Your task to perform on an android device: turn on notifications settings in the gmail app Image 0: 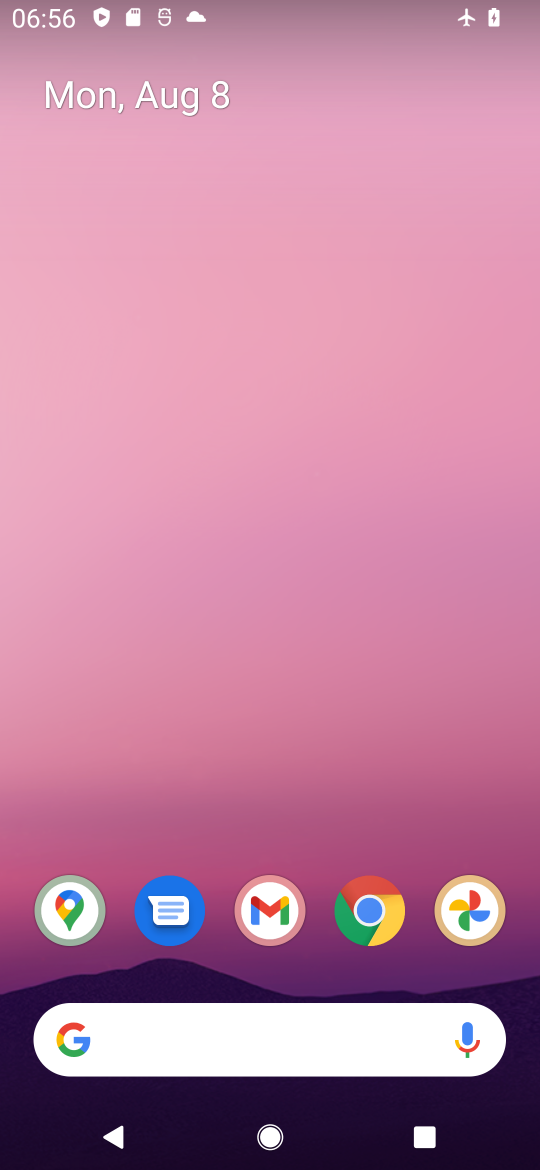
Step 0: drag from (261, 1050) to (282, 450)
Your task to perform on an android device: turn on notifications settings in the gmail app Image 1: 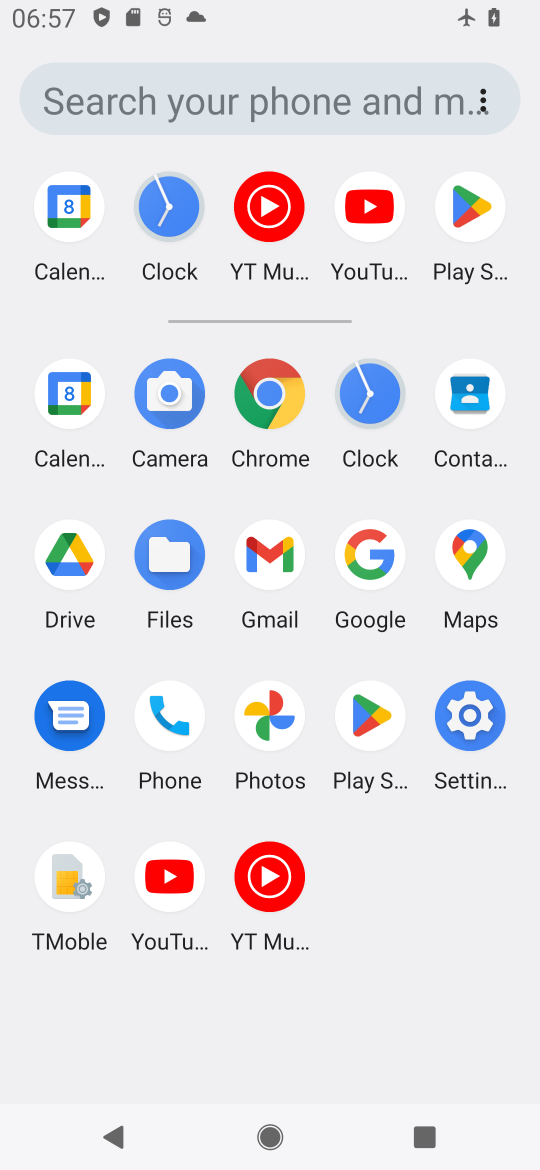
Step 1: click (271, 559)
Your task to perform on an android device: turn on notifications settings in the gmail app Image 2: 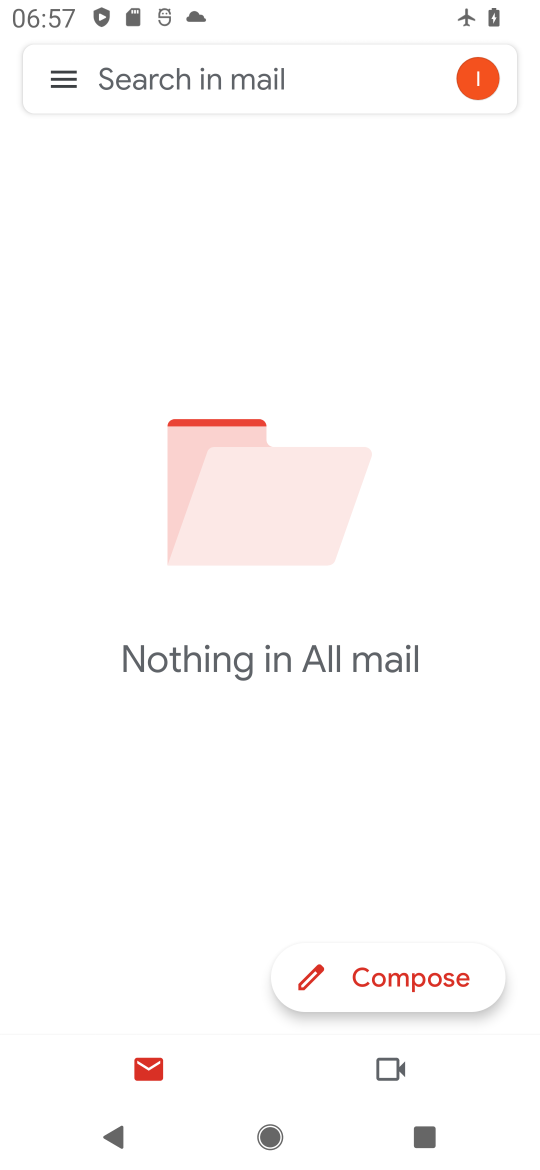
Step 2: click (65, 85)
Your task to perform on an android device: turn on notifications settings in the gmail app Image 3: 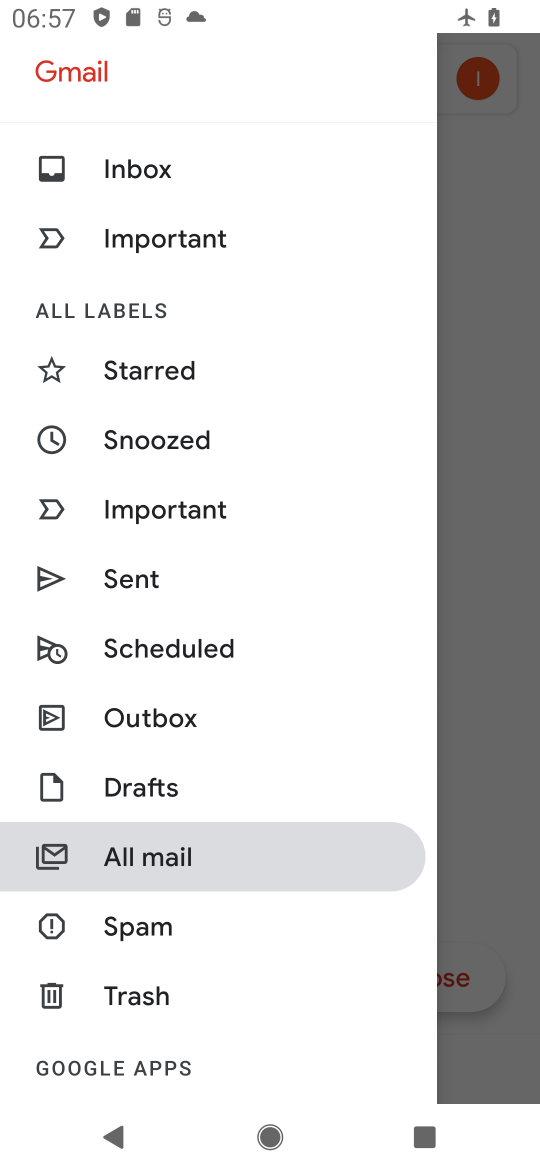
Step 3: drag from (148, 966) to (244, 824)
Your task to perform on an android device: turn on notifications settings in the gmail app Image 4: 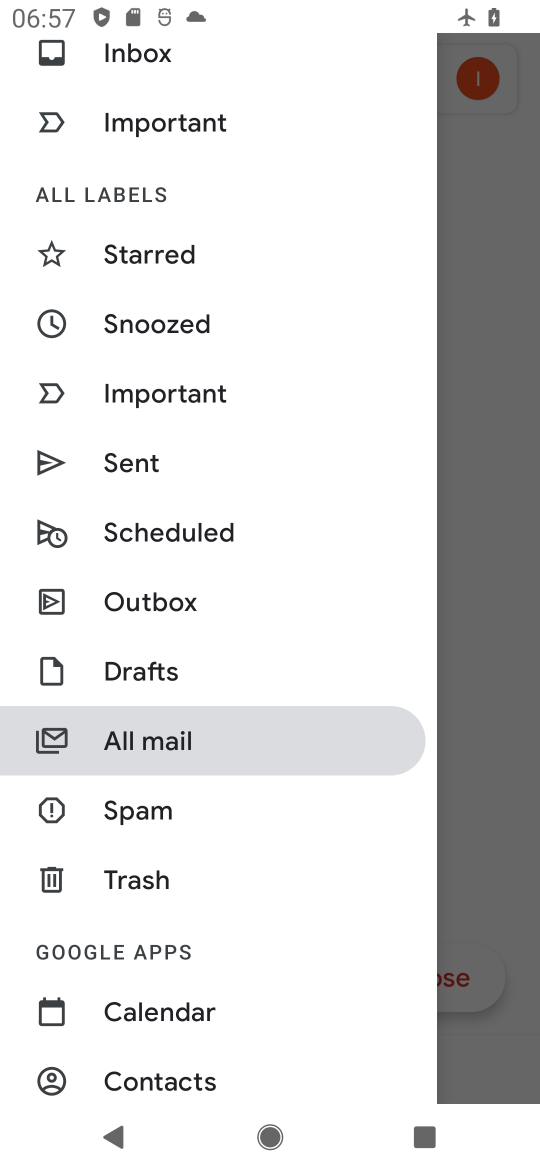
Step 4: drag from (126, 973) to (177, 851)
Your task to perform on an android device: turn on notifications settings in the gmail app Image 5: 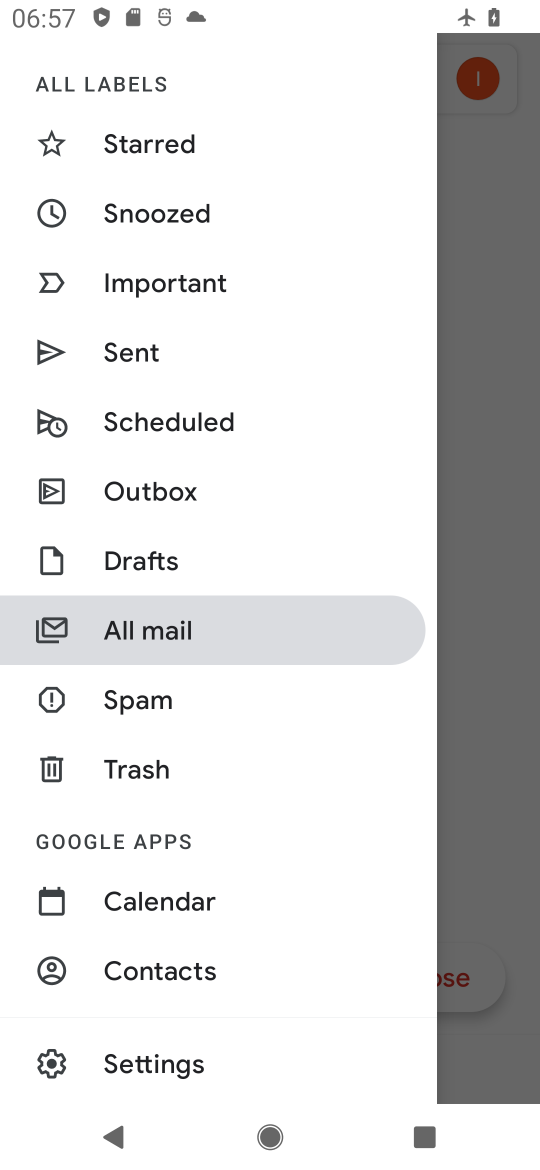
Step 5: drag from (134, 930) to (192, 783)
Your task to perform on an android device: turn on notifications settings in the gmail app Image 6: 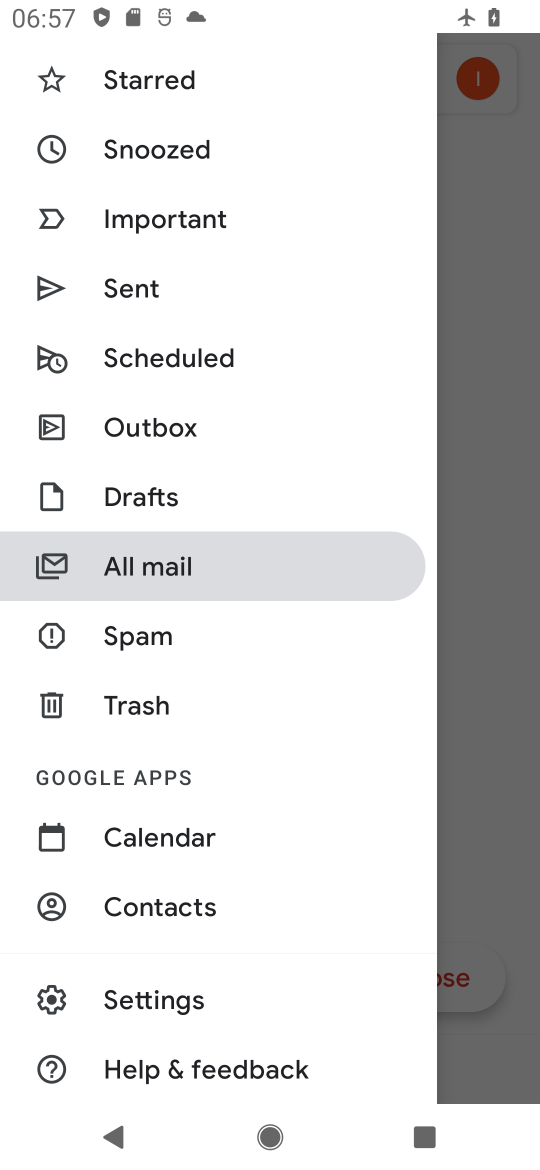
Step 6: click (165, 1007)
Your task to perform on an android device: turn on notifications settings in the gmail app Image 7: 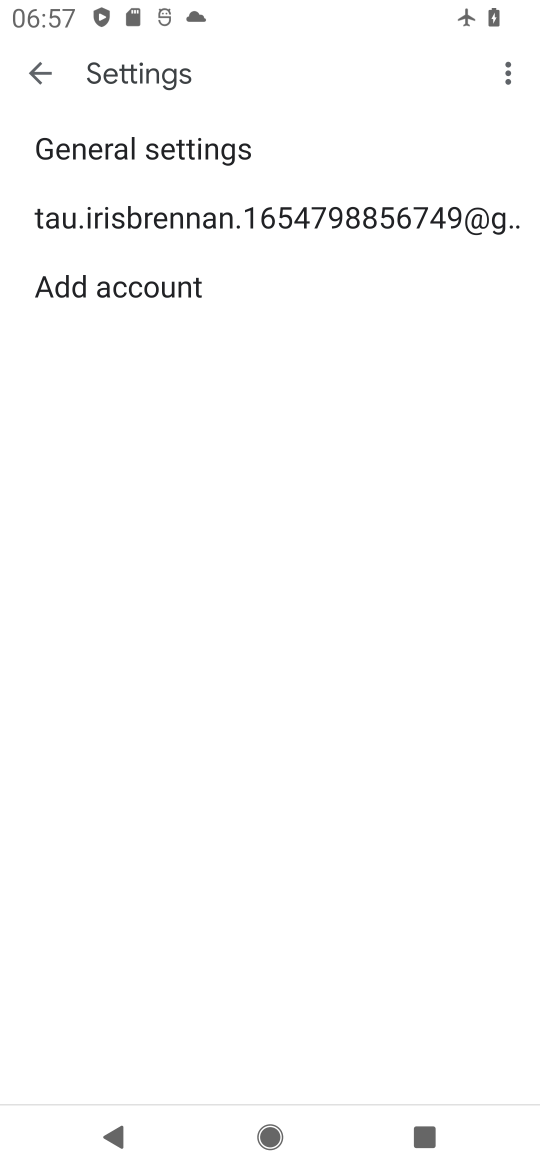
Step 7: click (194, 223)
Your task to perform on an android device: turn on notifications settings in the gmail app Image 8: 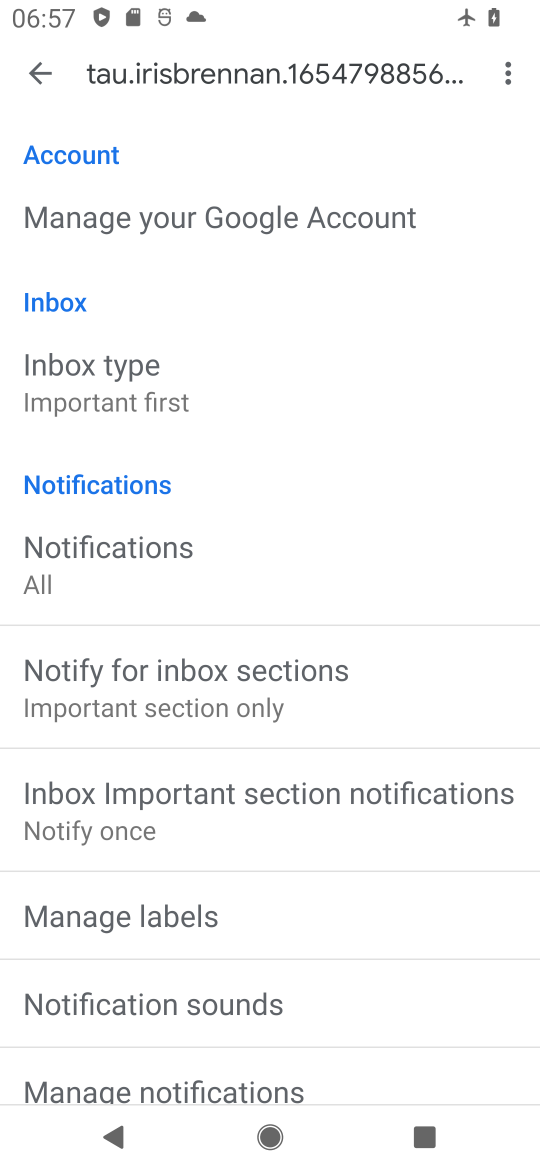
Step 8: drag from (148, 796) to (222, 626)
Your task to perform on an android device: turn on notifications settings in the gmail app Image 9: 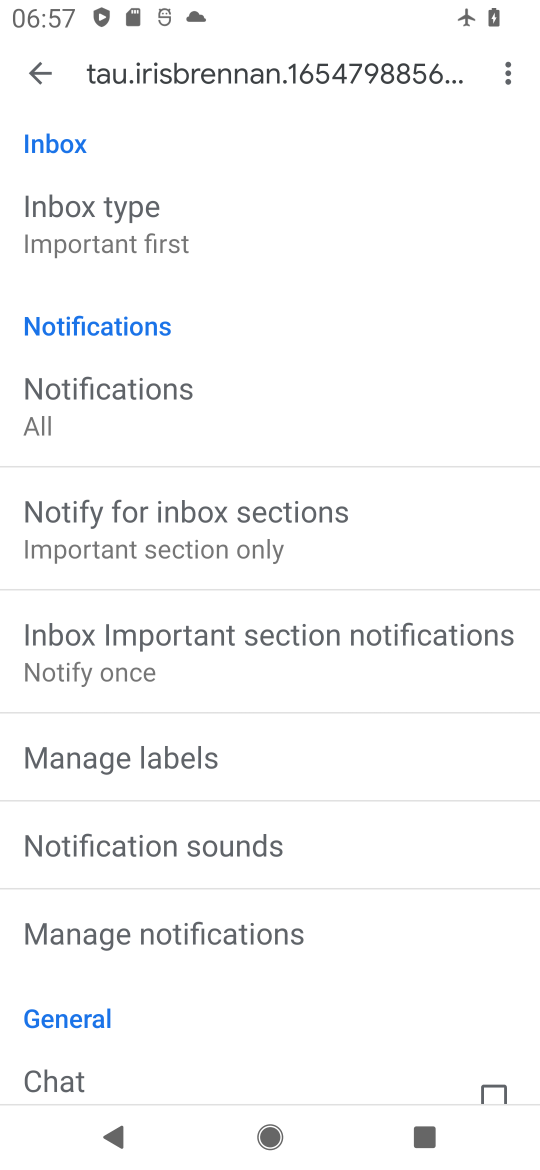
Step 9: click (240, 933)
Your task to perform on an android device: turn on notifications settings in the gmail app Image 10: 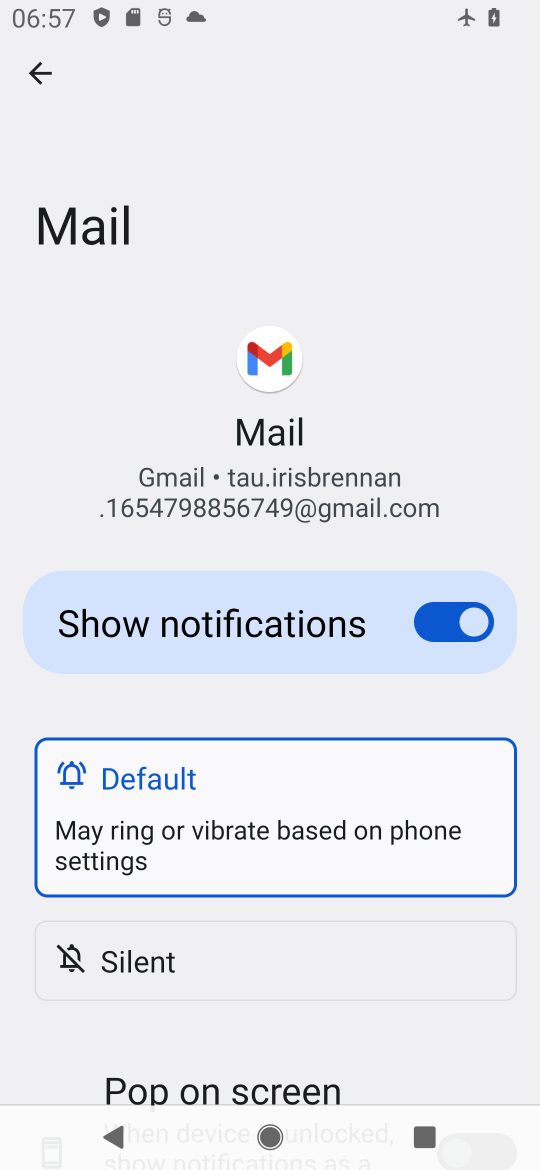
Step 10: task complete